Your task to perform on an android device: turn off location history Image 0: 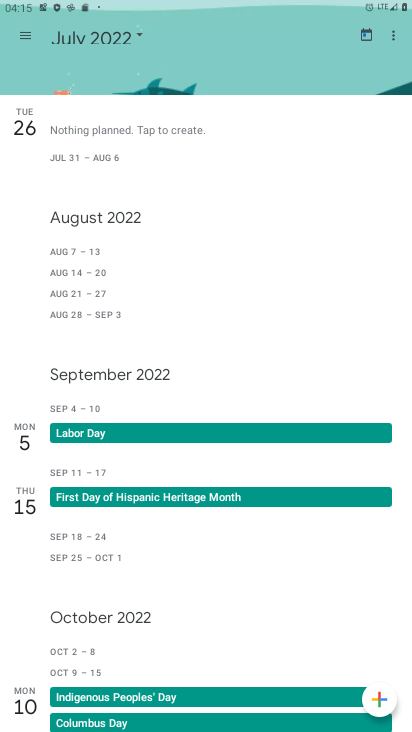
Step 0: press home button
Your task to perform on an android device: turn off location history Image 1: 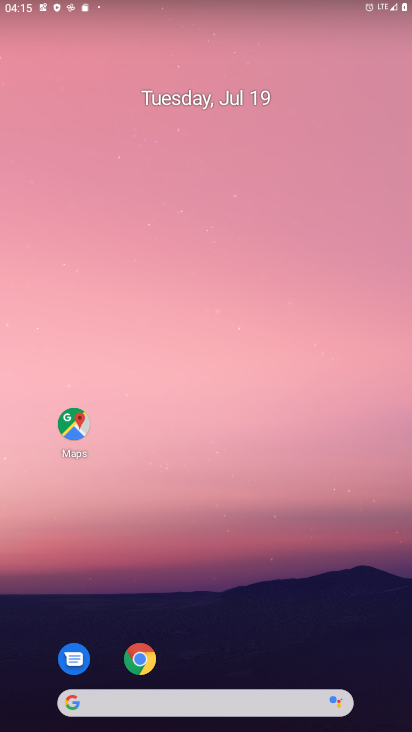
Step 1: drag from (299, 575) to (374, 24)
Your task to perform on an android device: turn off location history Image 2: 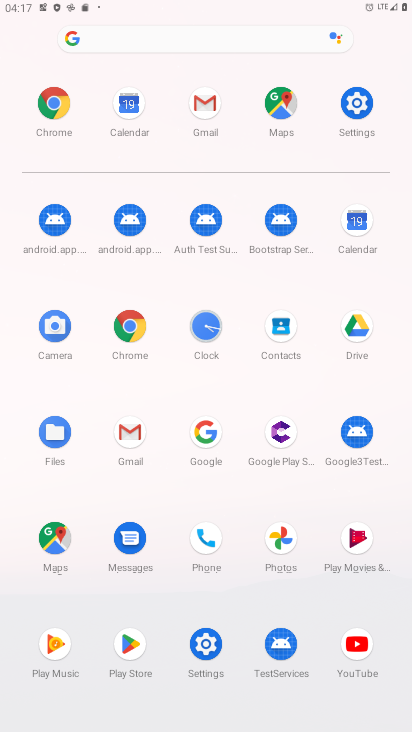
Step 2: click (69, 544)
Your task to perform on an android device: turn off location history Image 3: 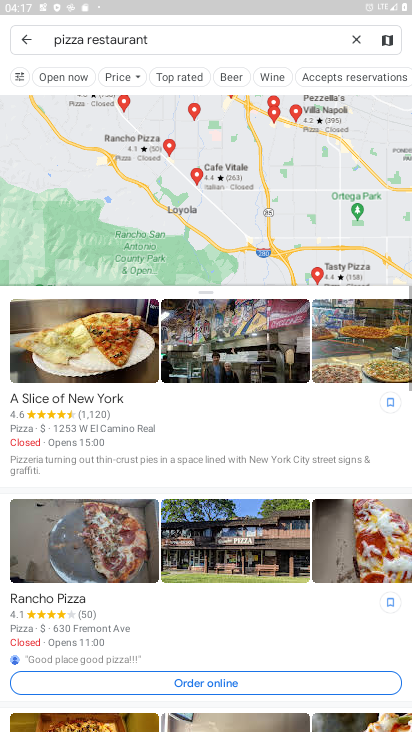
Step 3: click (16, 41)
Your task to perform on an android device: turn off location history Image 4: 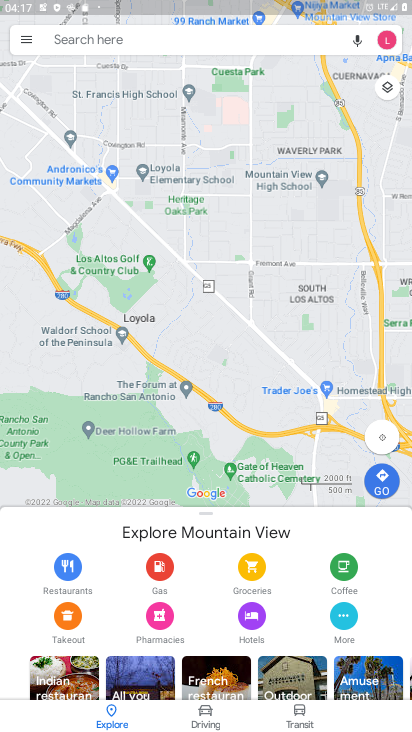
Step 4: click (16, 36)
Your task to perform on an android device: turn off location history Image 5: 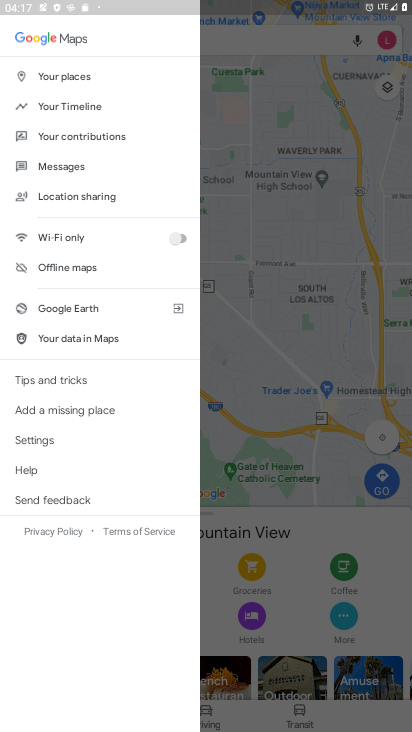
Step 5: click (91, 95)
Your task to perform on an android device: turn off location history Image 6: 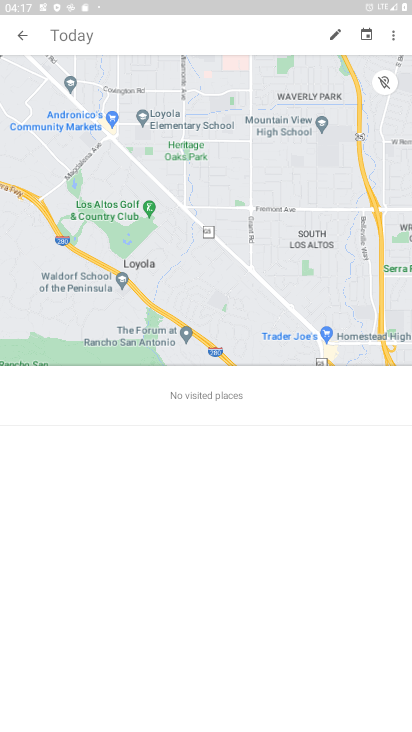
Step 6: click (385, 41)
Your task to perform on an android device: turn off location history Image 7: 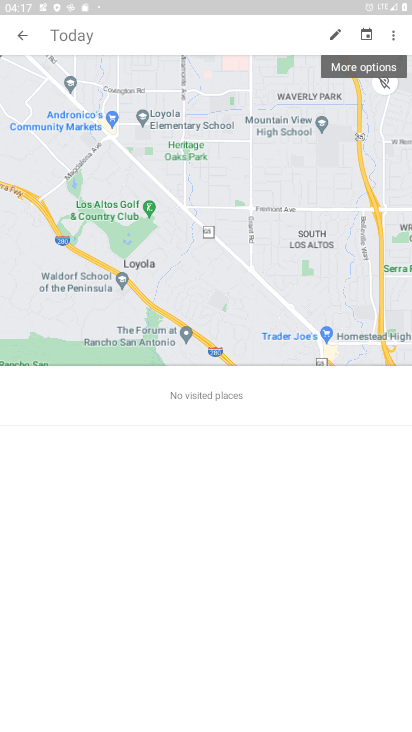
Step 7: click (385, 41)
Your task to perform on an android device: turn off location history Image 8: 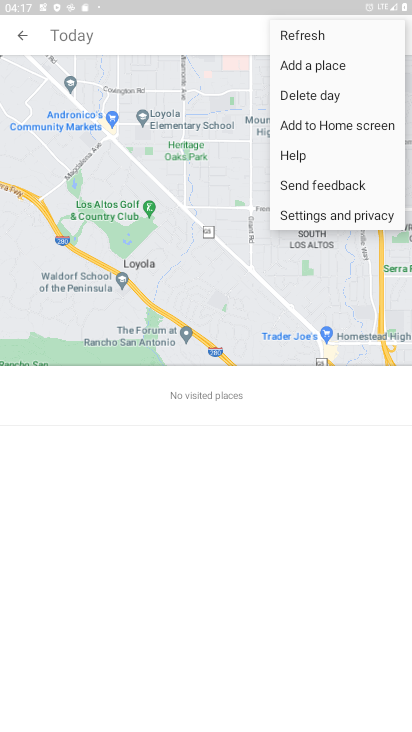
Step 8: click (317, 226)
Your task to perform on an android device: turn off location history Image 9: 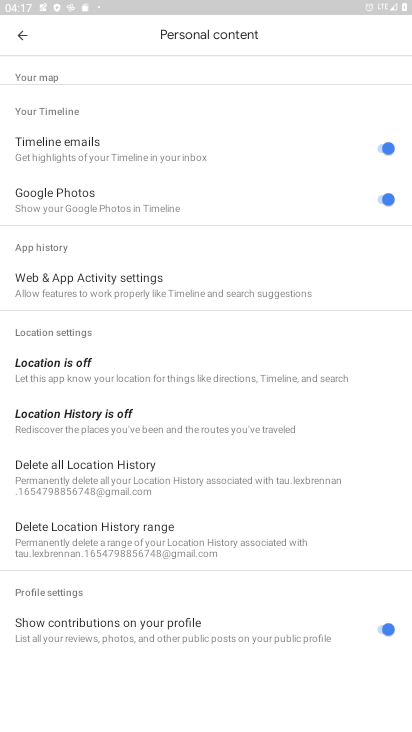
Step 9: click (59, 411)
Your task to perform on an android device: turn off location history Image 10: 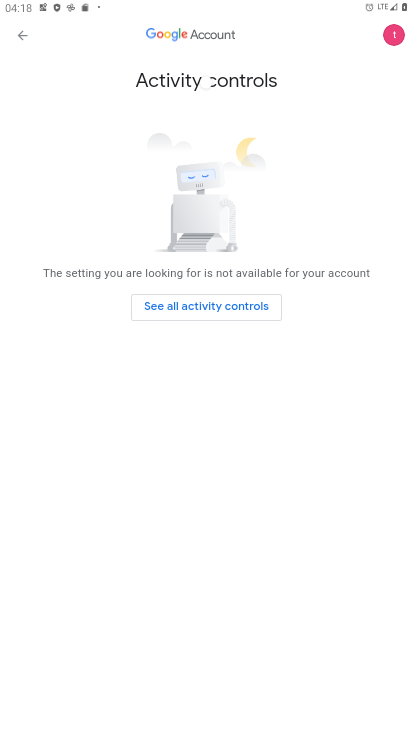
Step 10: click (177, 302)
Your task to perform on an android device: turn off location history Image 11: 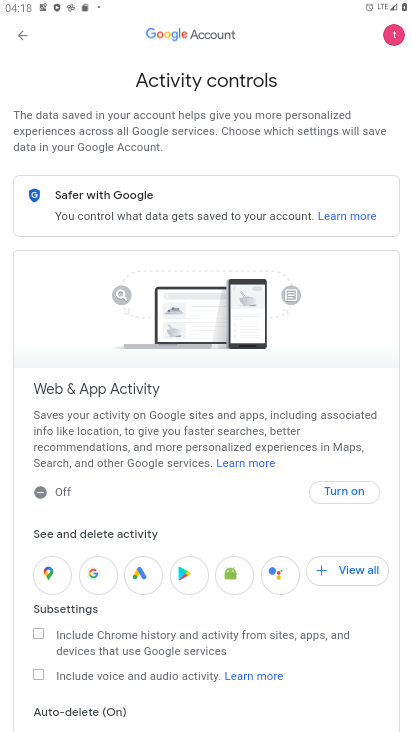
Step 11: click (336, 499)
Your task to perform on an android device: turn off location history Image 12: 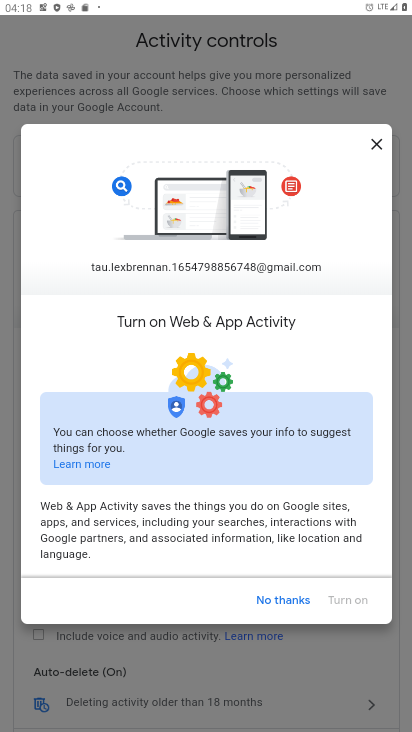
Step 12: click (272, 598)
Your task to perform on an android device: turn off location history Image 13: 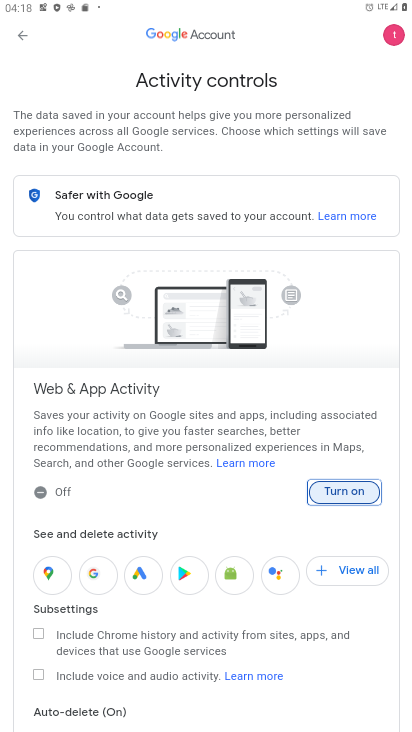
Step 13: task complete